Your task to perform on an android device: Search for seafood restaurants on Google Maps Image 0: 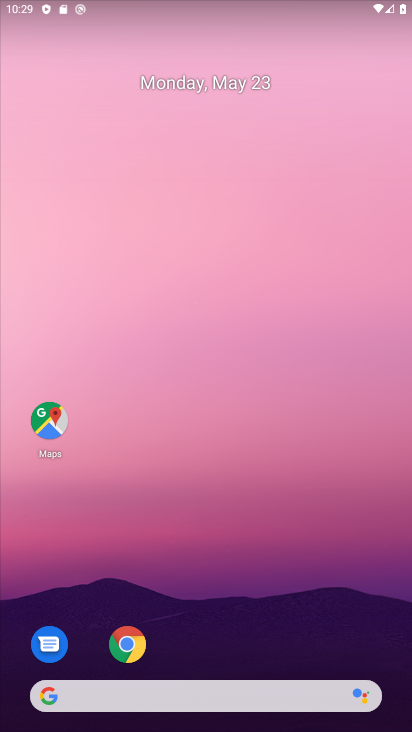
Step 0: drag from (202, 536) to (123, 2)
Your task to perform on an android device: Search for seafood restaurants on Google Maps Image 1: 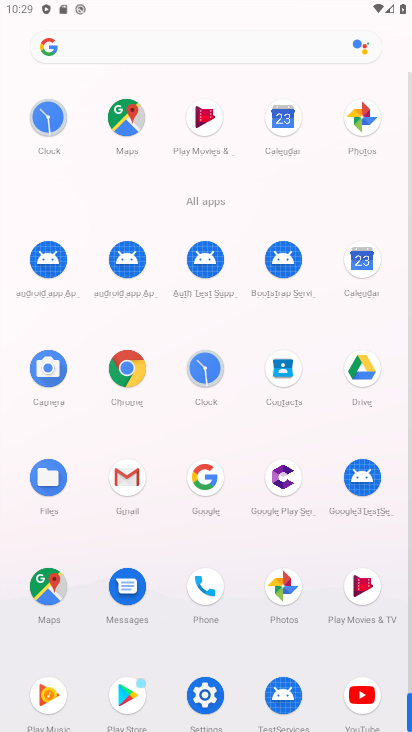
Step 1: click (29, 602)
Your task to perform on an android device: Search for seafood restaurants on Google Maps Image 2: 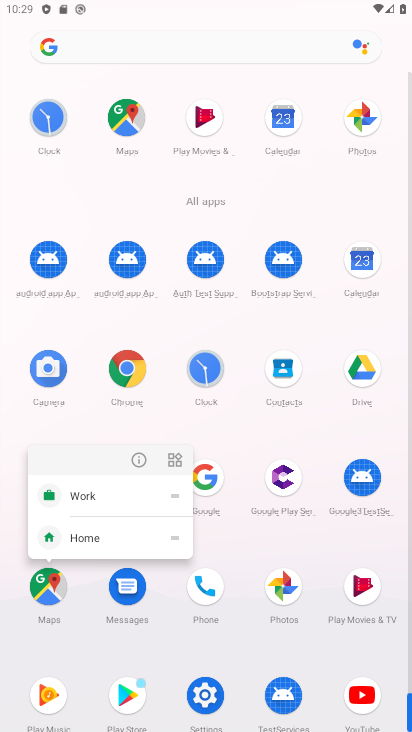
Step 2: click (49, 582)
Your task to perform on an android device: Search for seafood restaurants on Google Maps Image 3: 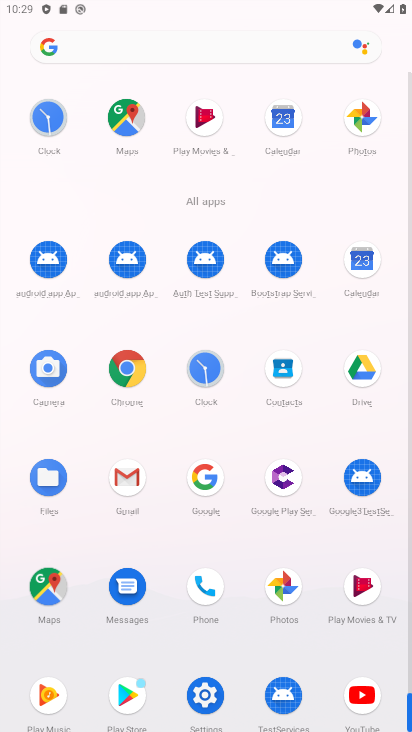
Step 3: click (49, 582)
Your task to perform on an android device: Search for seafood restaurants on Google Maps Image 4: 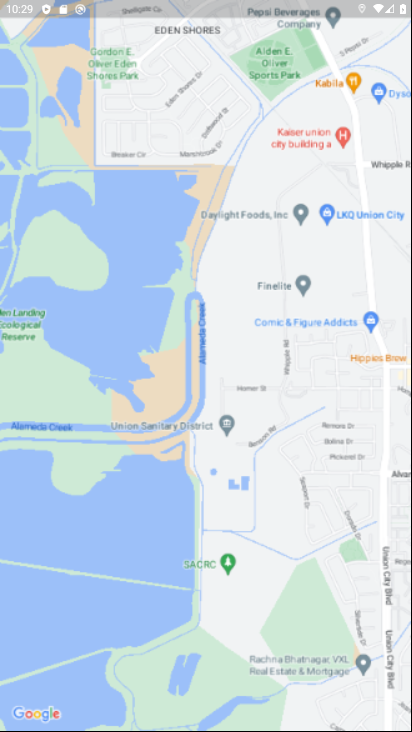
Step 4: click (46, 570)
Your task to perform on an android device: Search for seafood restaurants on Google Maps Image 5: 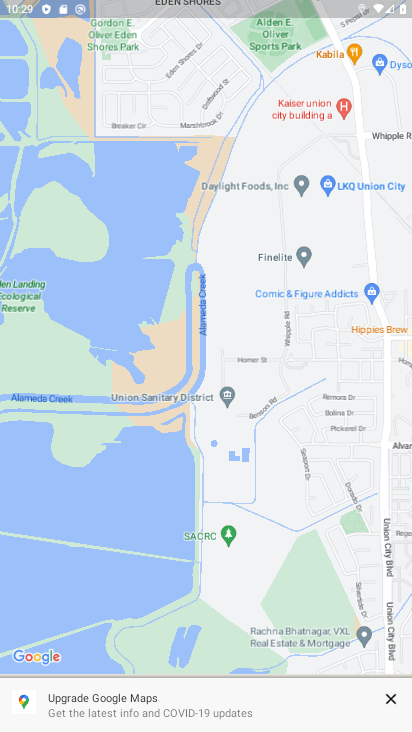
Step 5: click (49, 40)
Your task to perform on an android device: Search for seafood restaurants on Google Maps Image 6: 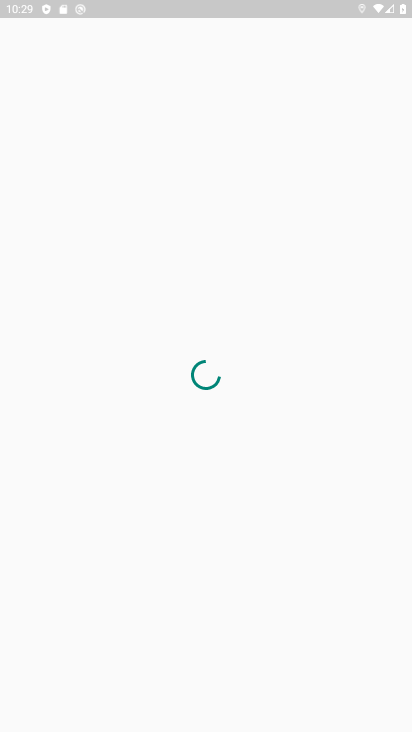
Step 6: click (50, 40)
Your task to perform on an android device: Search for seafood restaurants on Google Maps Image 7: 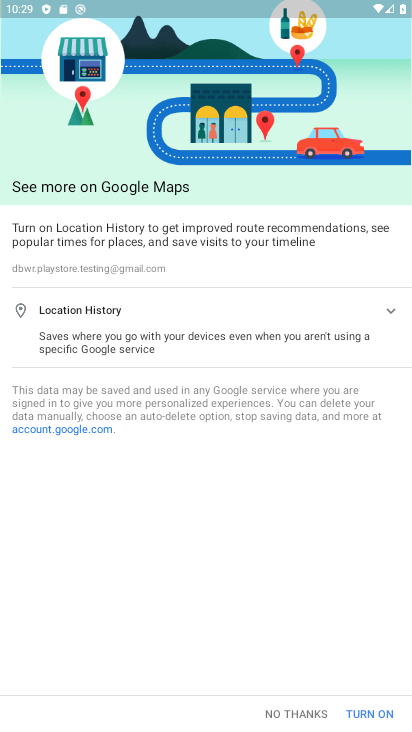
Step 7: press back button
Your task to perform on an android device: Search for seafood restaurants on Google Maps Image 8: 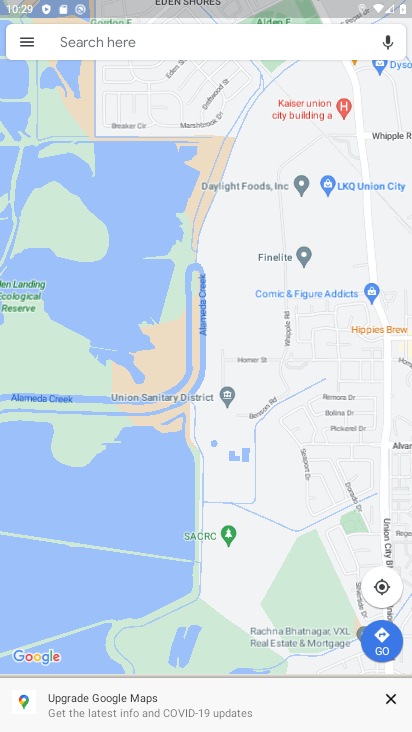
Step 8: click (51, 36)
Your task to perform on an android device: Search for seafood restaurants on Google Maps Image 9: 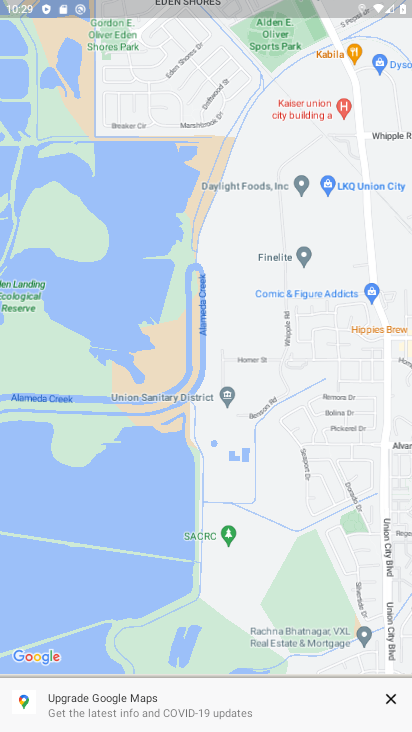
Step 9: click (111, 7)
Your task to perform on an android device: Search for seafood restaurants on Google Maps Image 10: 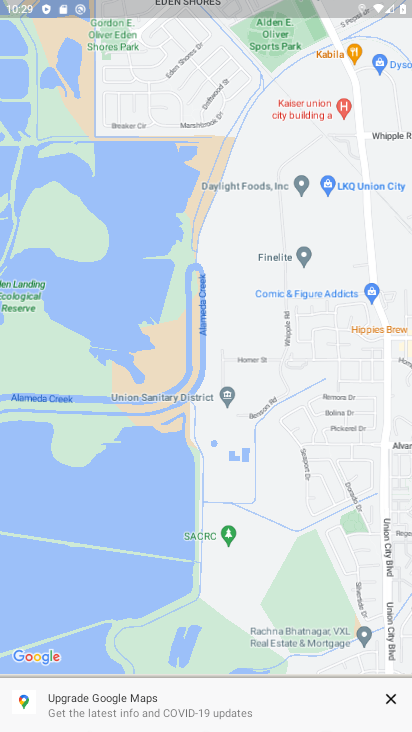
Step 10: click (111, 7)
Your task to perform on an android device: Search for seafood restaurants on Google Maps Image 11: 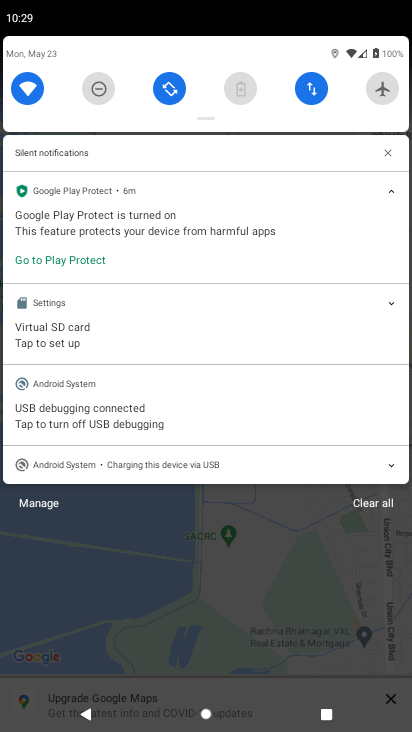
Step 11: click (163, 592)
Your task to perform on an android device: Search for seafood restaurants on Google Maps Image 12: 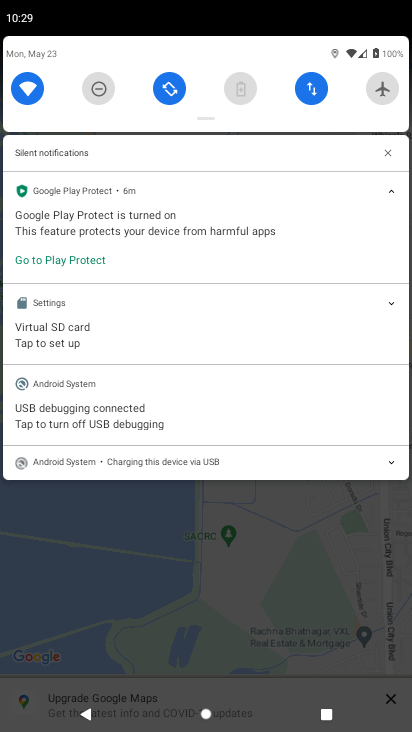
Step 12: click (165, 590)
Your task to perform on an android device: Search for seafood restaurants on Google Maps Image 13: 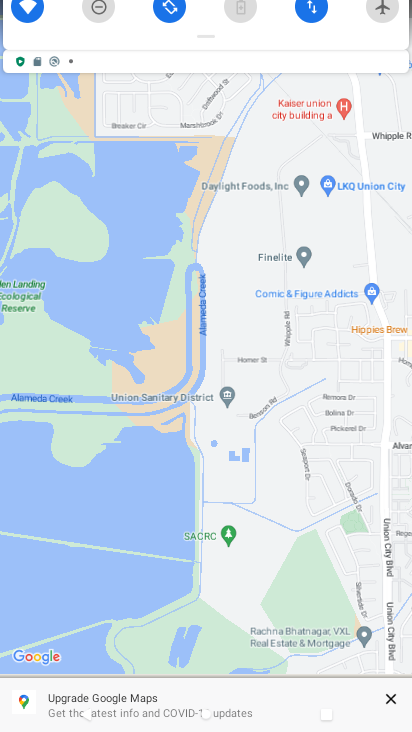
Step 13: click (171, 565)
Your task to perform on an android device: Search for seafood restaurants on Google Maps Image 14: 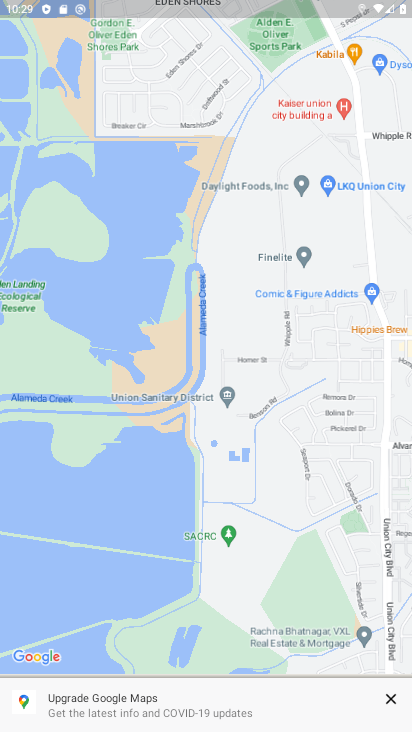
Step 14: drag from (151, 198) to (151, 560)
Your task to perform on an android device: Search for seafood restaurants on Google Maps Image 15: 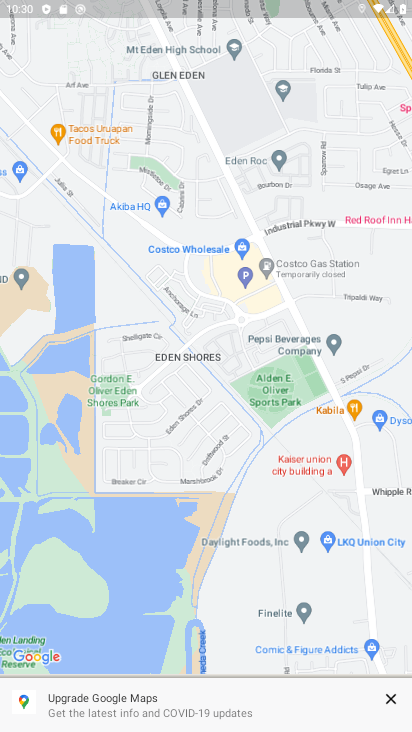
Step 15: drag from (172, 460) to (218, 285)
Your task to perform on an android device: Search for seafood restaurants on Google Maps Image 16: 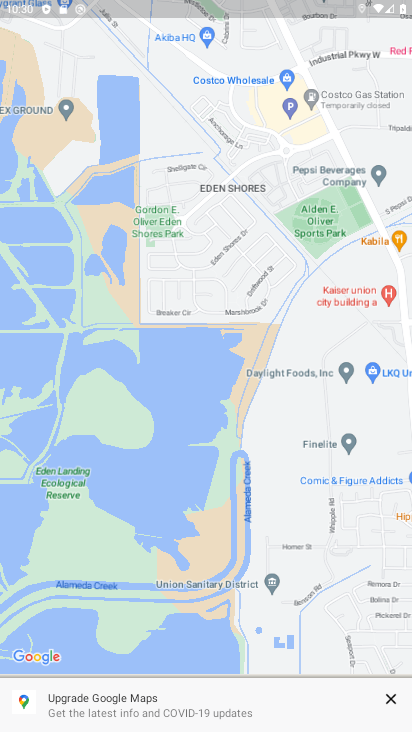
Step 16: press back button
Your task to perform on an android device: Search for seafood restaurants on Google Maps Image 17: 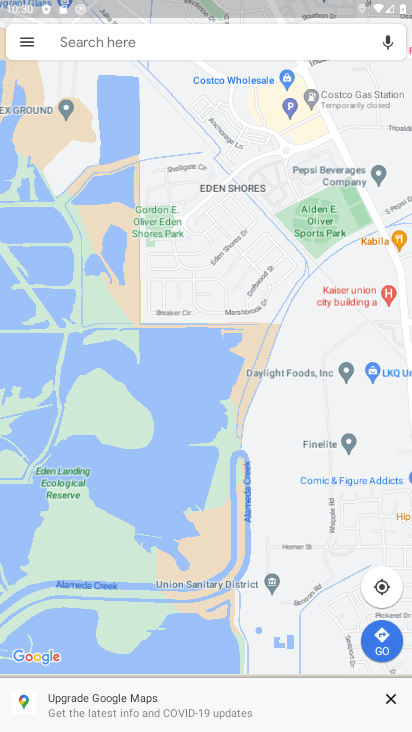
Step 17: click (49, 40)
Your task to perform on an android device: Search for seafood restaurants on Google Maps Image 18: 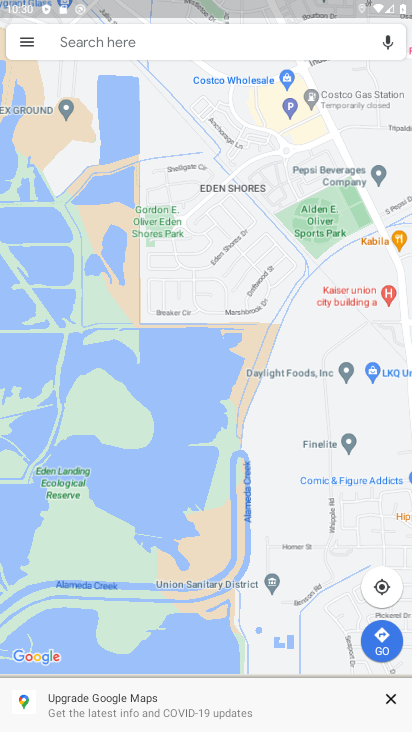
Step 18: click (64, 38)
Your task to perform on an android device: Search for seafood restaurants on Google Maps Image 19: 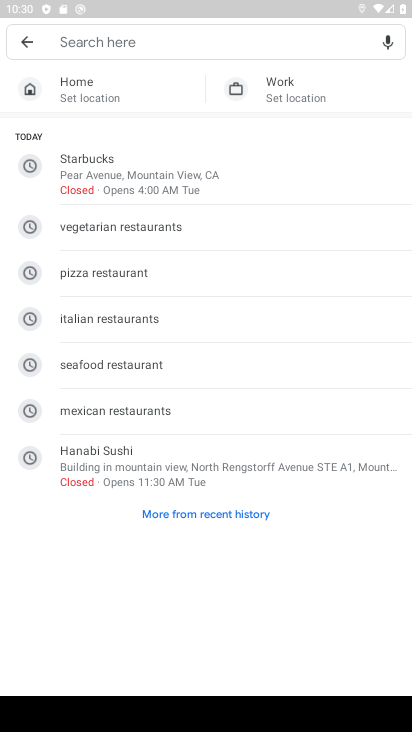
Step 19: click (89, 356)
Your task to perform on an android device: Search for seafood restaurants on Google Maps Image 20: 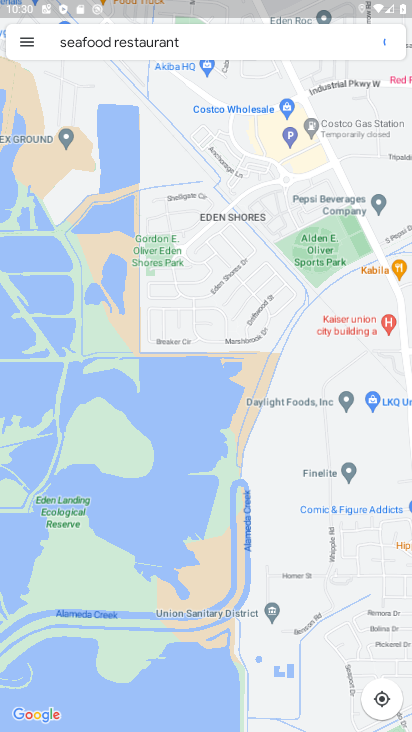
Step 20: task complete